Your task to perform on an android device: find photos in the google photos app Image 0: 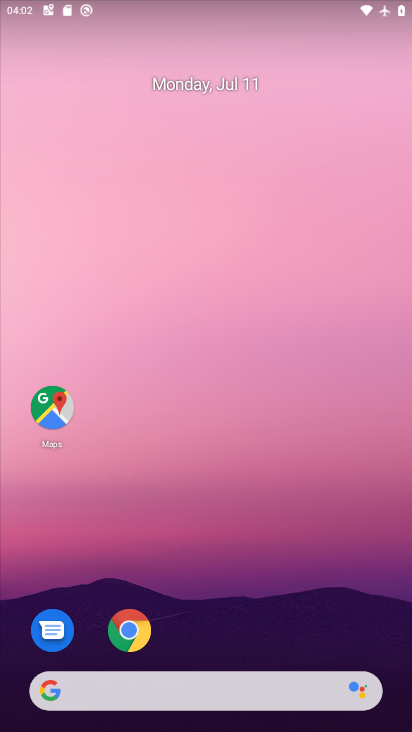
Step 0: drag from (266, 628) to (229, 170)
Your task to perform on an android device: find photos in the google photos app Image 1: 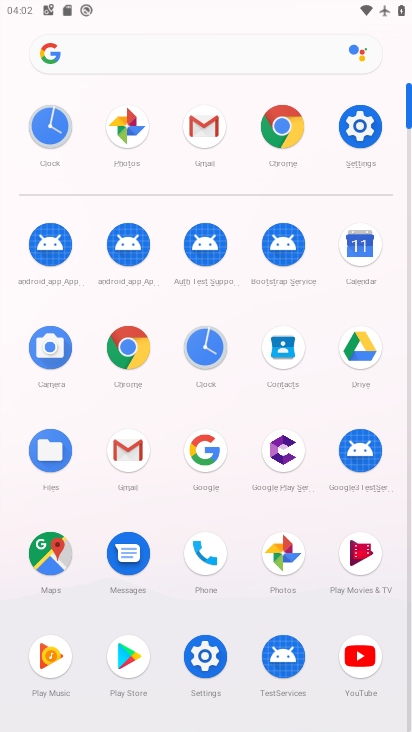
Step 1: click (268, 567)
Your task to perform on an android device: find photos in the google photos app Image 2: 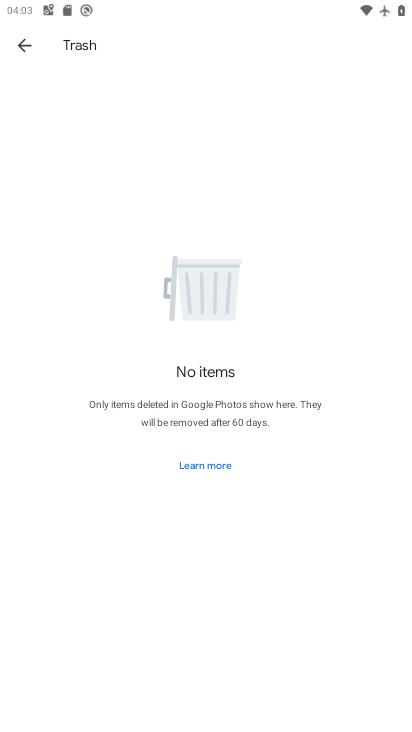
Step 2: click (21, 34)
Your task to perform on an android device: find photos in the google photos app Image 3: 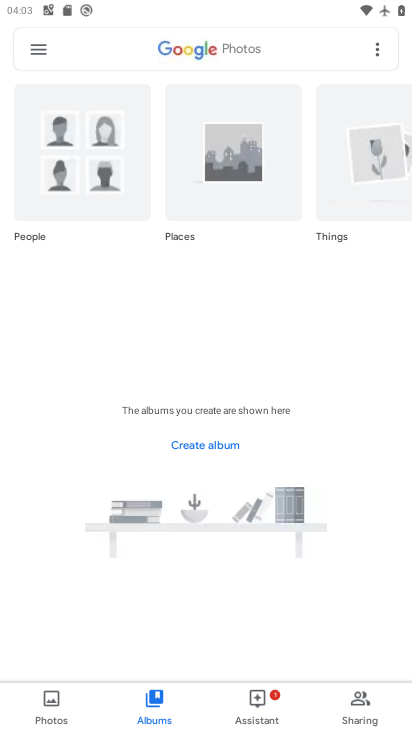
Step 3: click (44, 62)
Your task to perform on an android device: find photos in the google photos app Image 4: 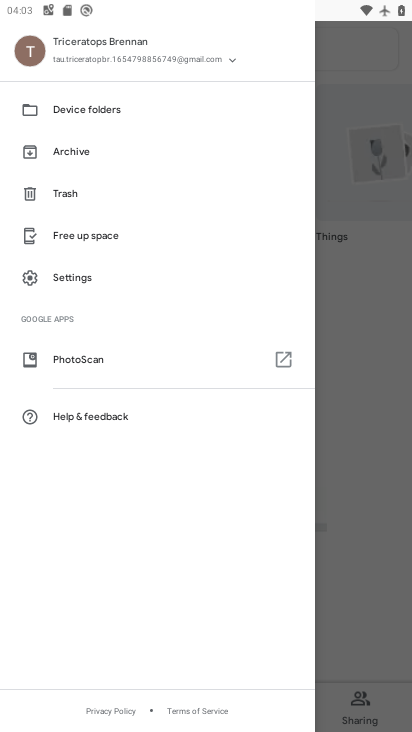
Step 4: click (63, 102)
Your task to perform on an android device: find photos in the google photos app Image 5: 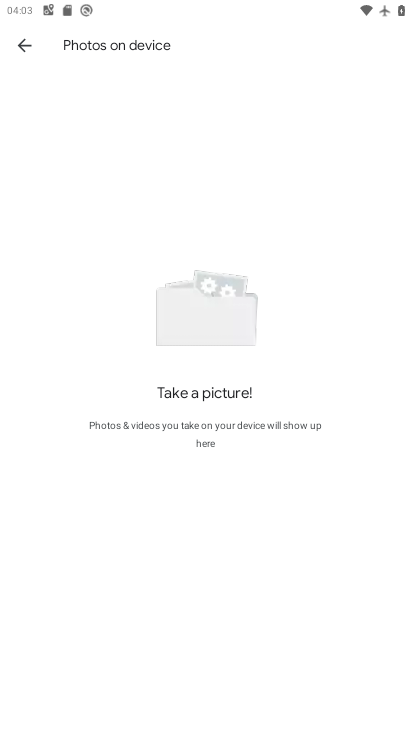
Step 5: task complete